Your task to perform on an android device: toggle notifications settings in the gmail app Image 0: 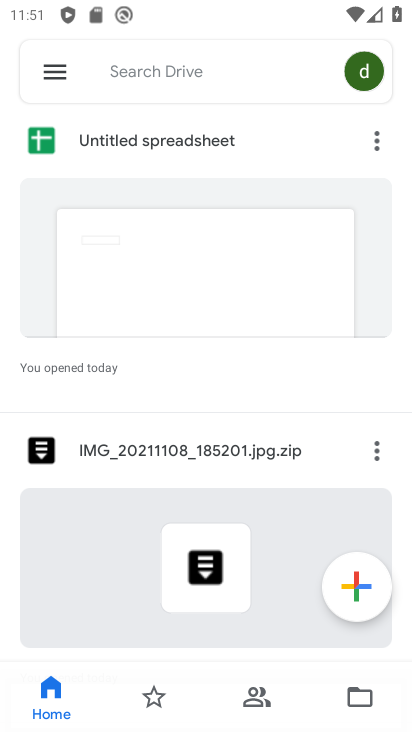
Step 0: press home button
Your task to perform on an android device: toggle notifications settings in the gmail app Image 1: 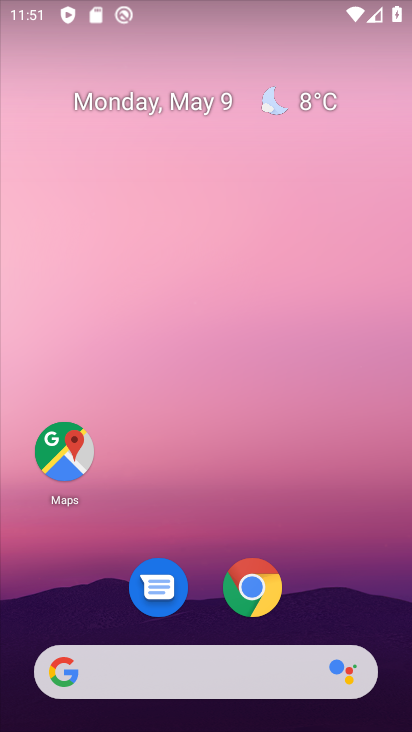
Step 1: drag from (352, 344) to (317, 148)
Your task to perform on an android device: toggle notifications settings in the gmail app Image 2: 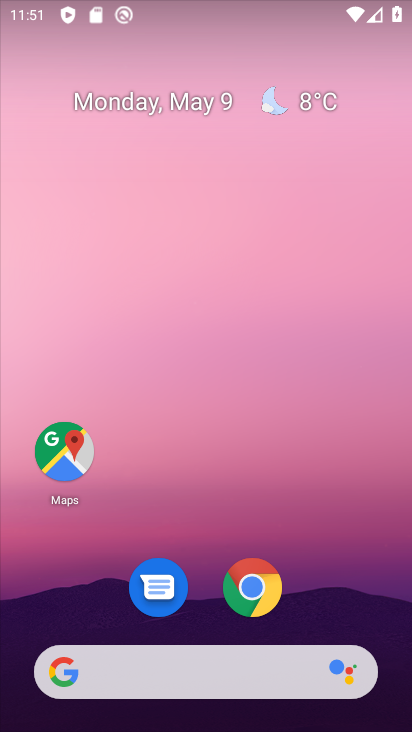
Step 2: drag from (386, 582) to (342, 191)
Your task to perform on an android device: toggle notifications settings in the gmail app Image 3: 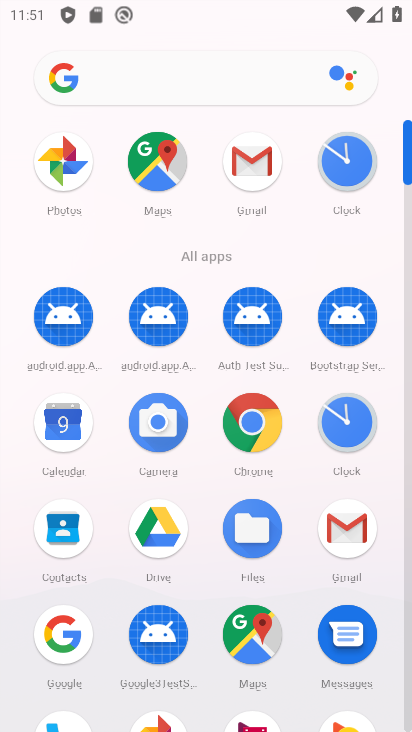
Step 3: click (340, 539)
Your task to perform on an android device: toggle notifications settings in the gmail app Image 4: 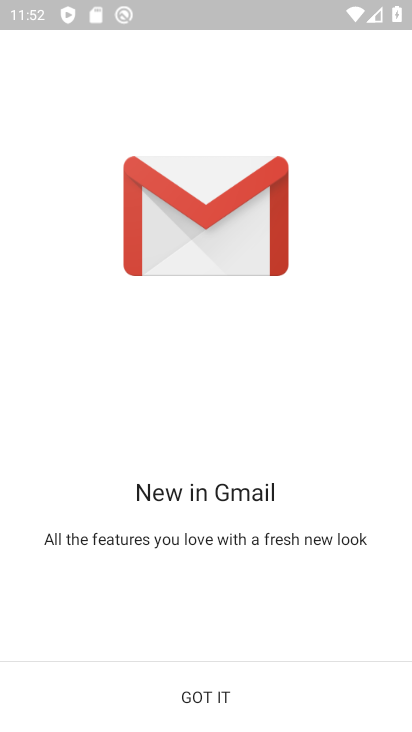
Step 4: click (224, 689)
Your task to perform on an android device: toggle notifications settings in the gmail app Image 5: 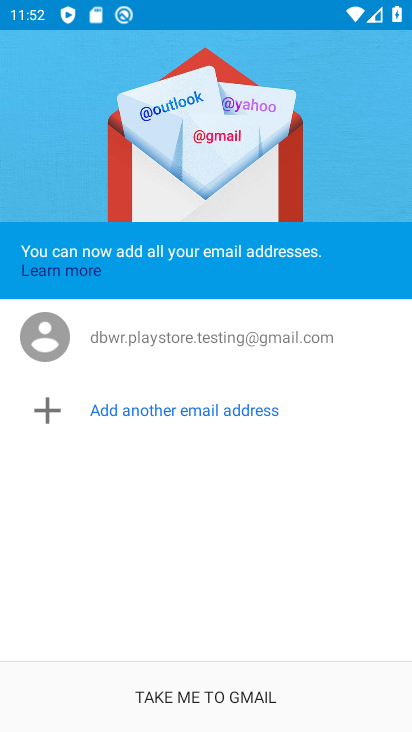
Step 5: click (204, 695)
Your task to perform on an android device: toggle notifications settings in the gmail app Image 6: 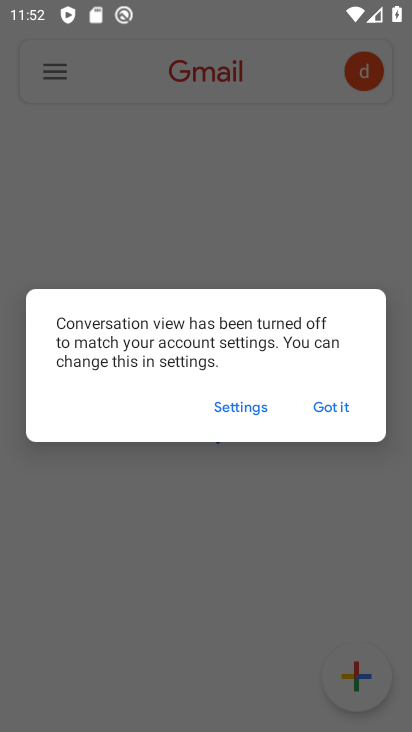
Step 6: click (332, 413)
Your task to perform on an android device: toggle notifications settings in the gmail app Image 7: 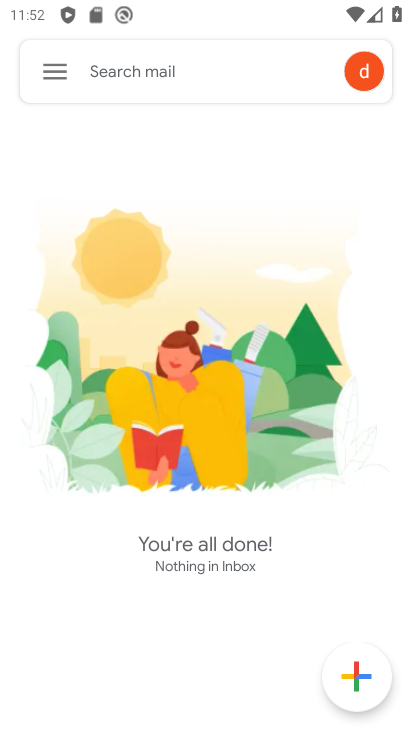
Step 7: click (52, 74)
Your task to perform on an android device: toggle notifications settings in the gmail app Image 8: 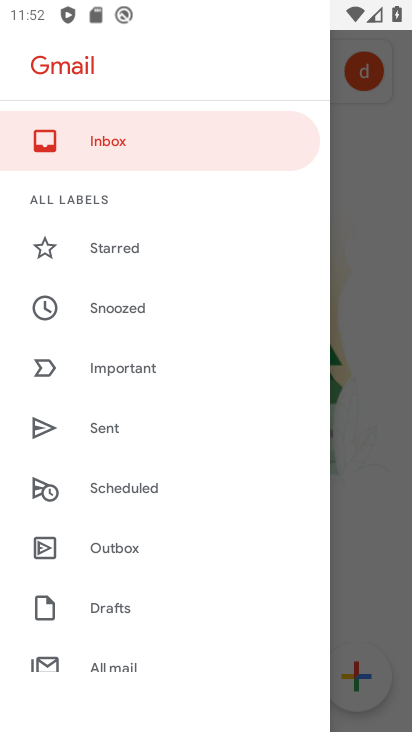
Step 8: drag from (207, 639) to (166, 340)
Your task to perform on an android device: toggle notifications settings in the gmail app Image 9: 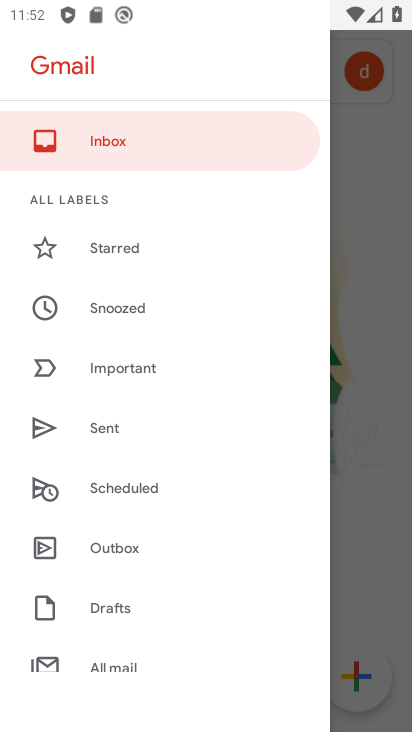
Step 9: drag from (201, 597) to (185, 309)
Your task to perform on an android device: toggle notifications settings in the gmail app Image 10: 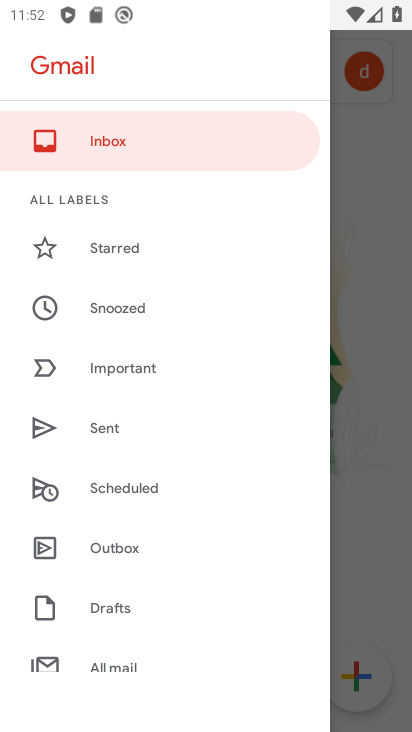
Step 10: drag from (236, 629) to (214, 379)
Your task to perform on an android device: toggle notifications settings in the gmail app Image 11: 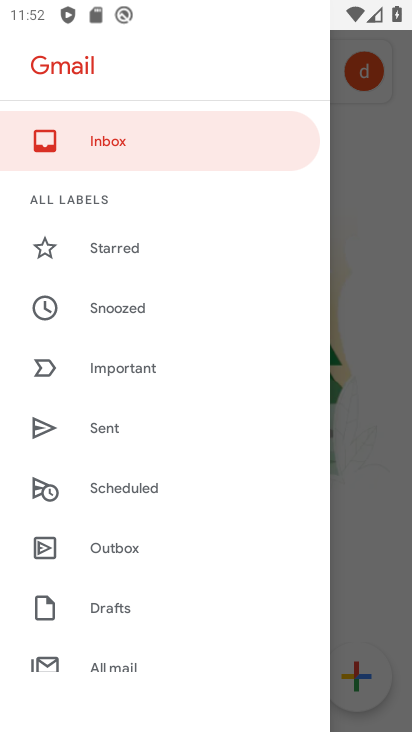
Step 11: drag from (178, 643) to (204, 262)
Your task to perform on an android device: toggle notifications settings in the gmail app Image 12: 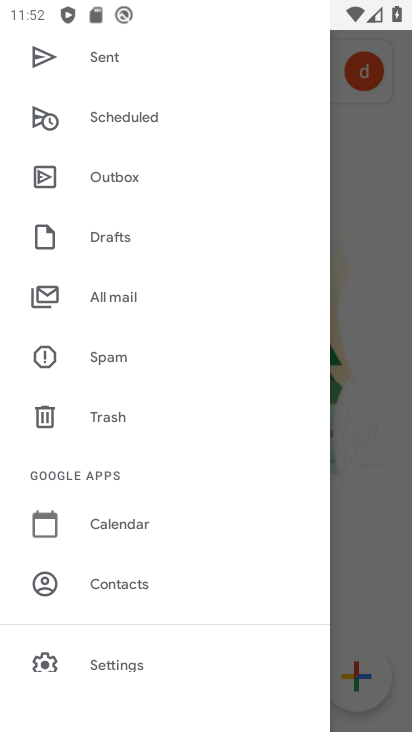
Step 12: click (128, 669)
Your task to perform on an android device: toggle notifications settings in the gmail app Image 13: 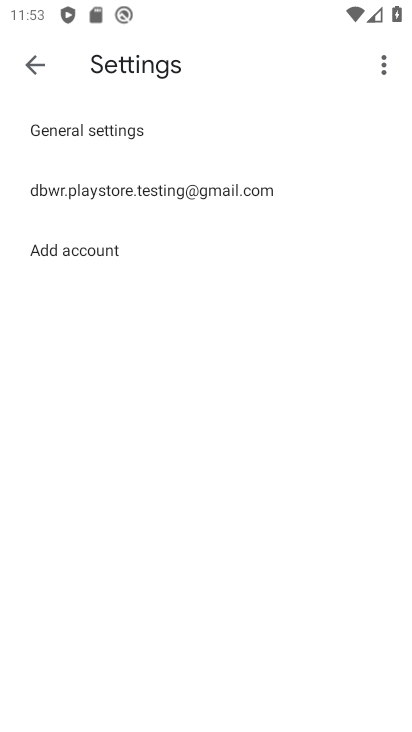
Step 13: click (73, 137)
Your task to perform on an android device: toggle notifications settings in the gmail app Image 14: 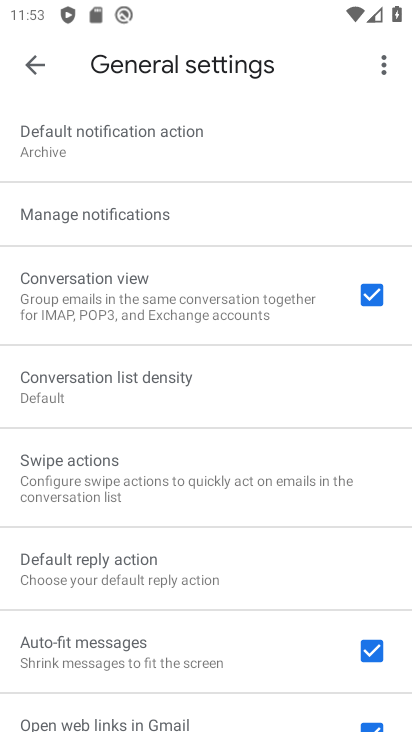
Step 14: click (71, 215)
Your task to perform on an android device: toggle notifications settings in the gmail app Image 15: 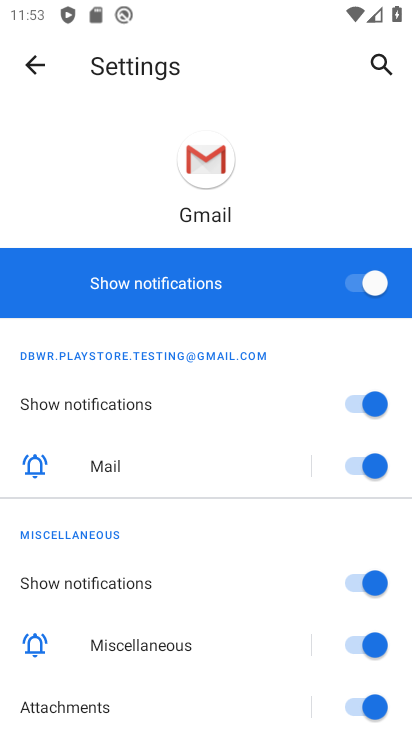
Step 15: click (352, 285)
Your task to perform on an android device: toggle notifications settings in the gmail app Image 16: 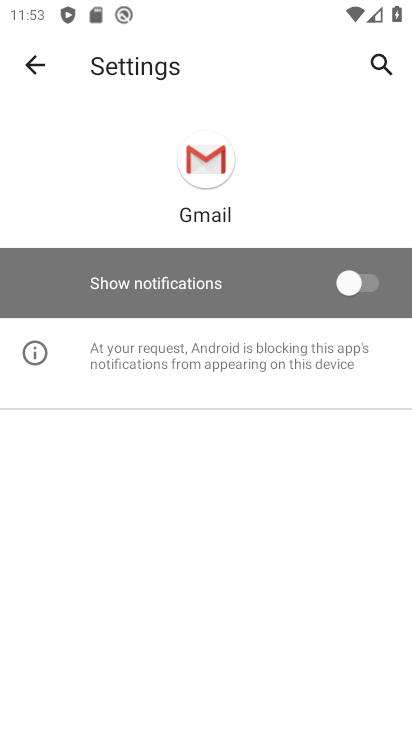
Step 16: task complete